Your task to perform on an android device: change notifications settings Image 0: 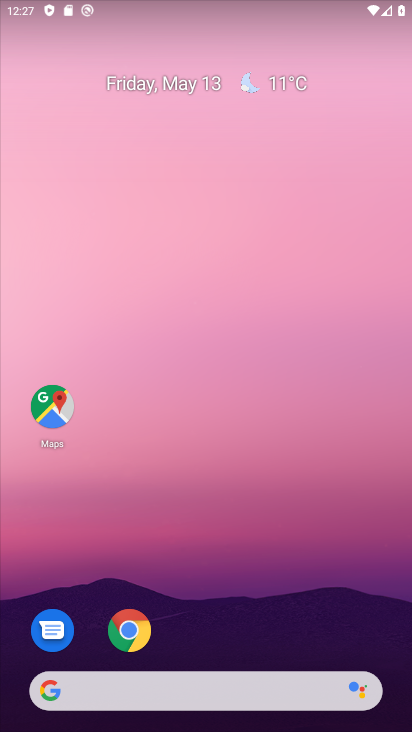
Step 0: drag from (354, 640) to (346, 4)
Your task to perform on an android device: change notifications settings Image 1: 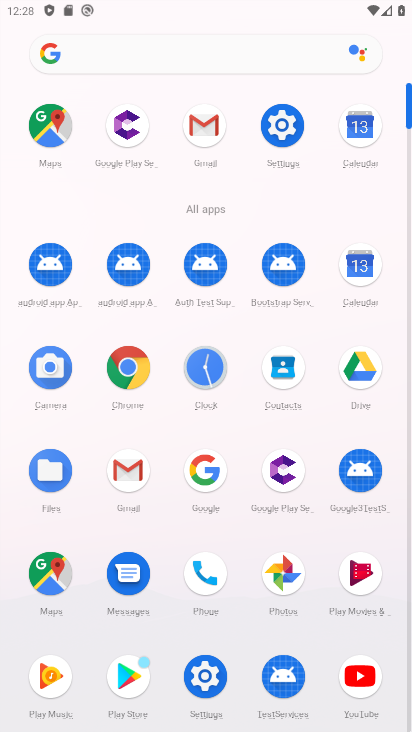
Step 1: click (293, 144)
Your task to perform on an android device: change notifications settings Image 2: 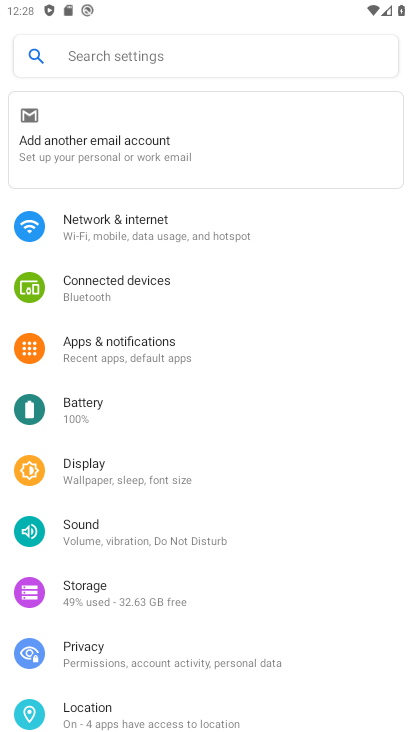
Step 2: click (108, 351)
Your task to perform on an android device: change notifications settings Image 3: 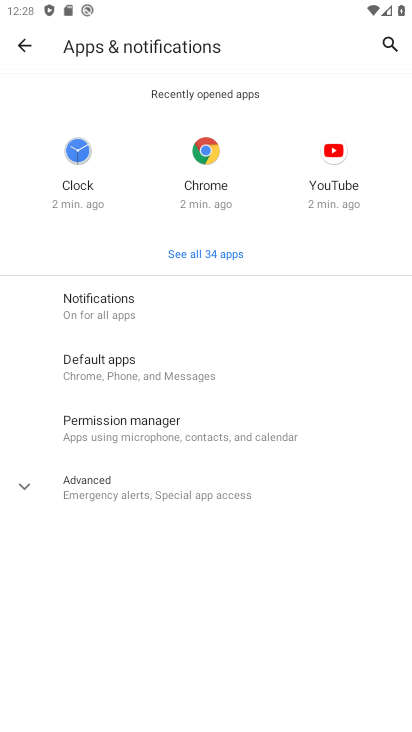
Step 3: click (112, 310)
Your task to perform on an android device: change notifications settings Image 4: 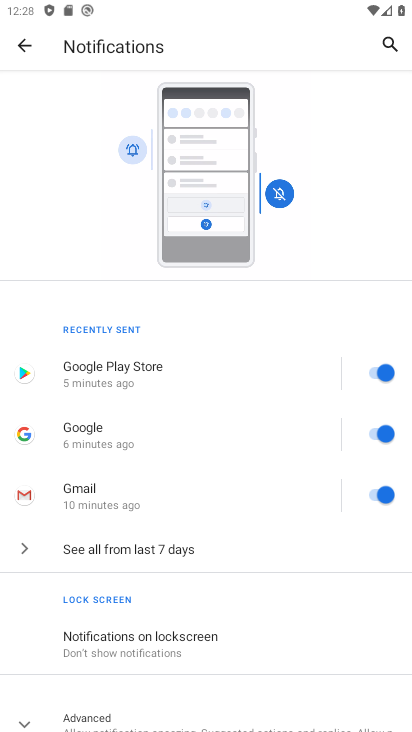
Step 4: click (153, 560)
Your task to perform on an android device: change notifications settings Image 5: 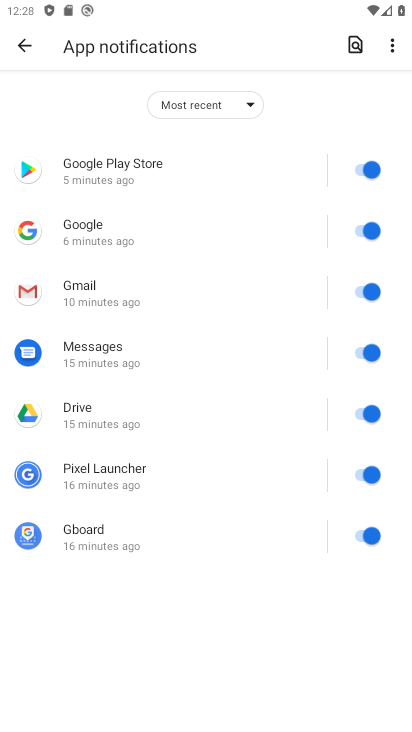
Step 5: click (255, 104)
Your task to perform on an android device: change notifications settings Image 6: 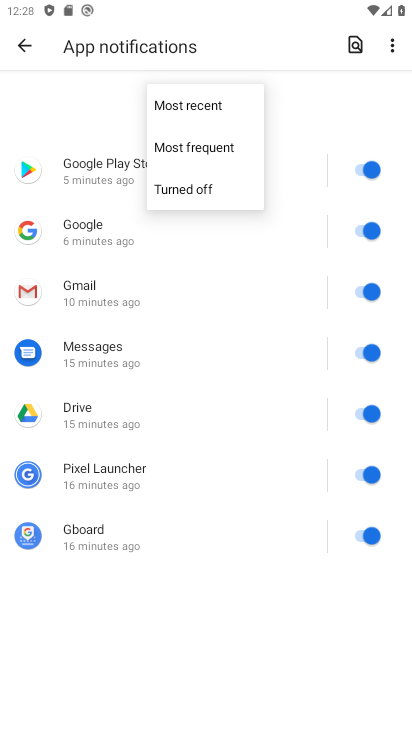
Step 6: click (214, 149)
Your task to perform on an android device: change notifications settings Image 7: 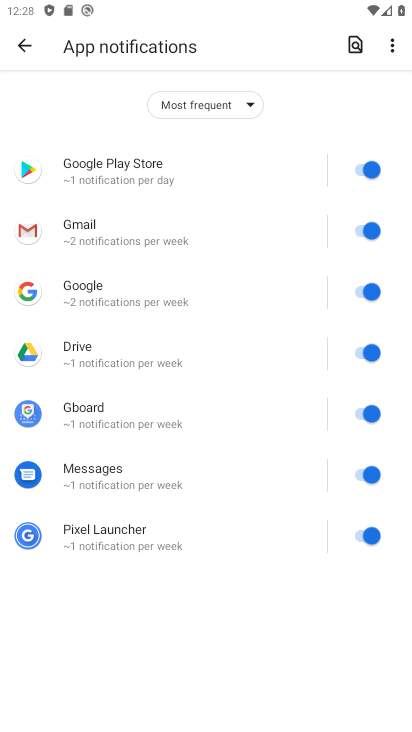
Step 7: task complete